Your task to perform on an android device: Go to Amazon Image 0: 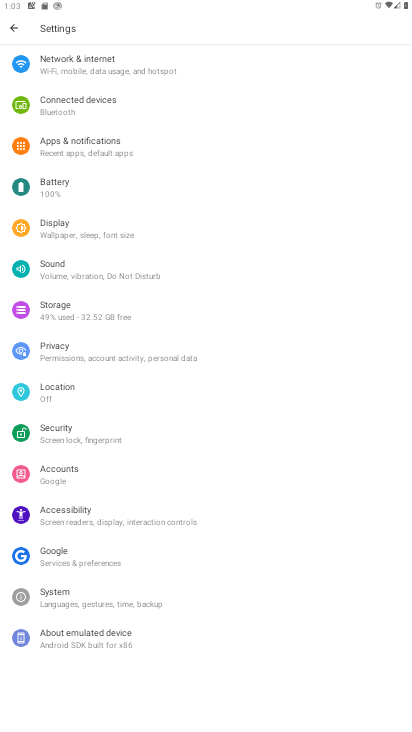
Step 0: press home button
Your task to perform on an android device: Go to Amazon Image 1: 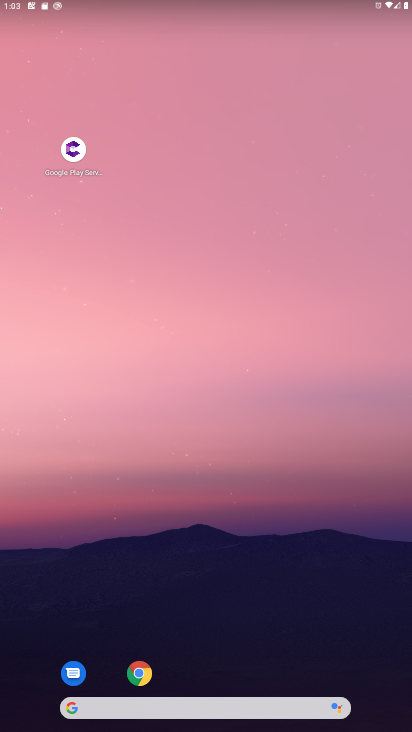
Step 1: click (139, 679)
Your task to perform on an android device: Go to Amazon Image 2: 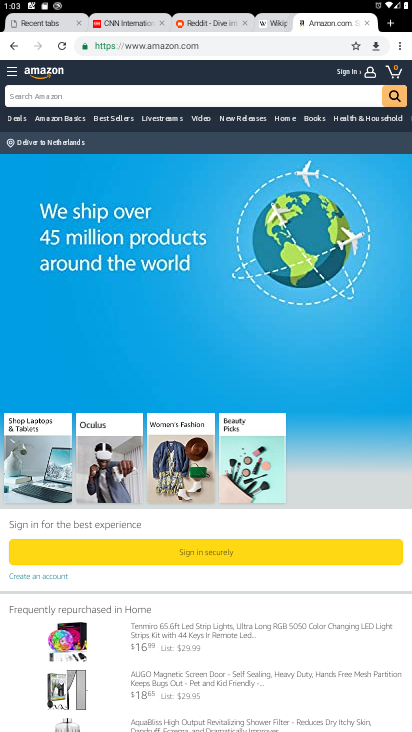
Step 2: task complete